Your task to perform on an android device: turn on notifications settings in the gmail app Image 0: 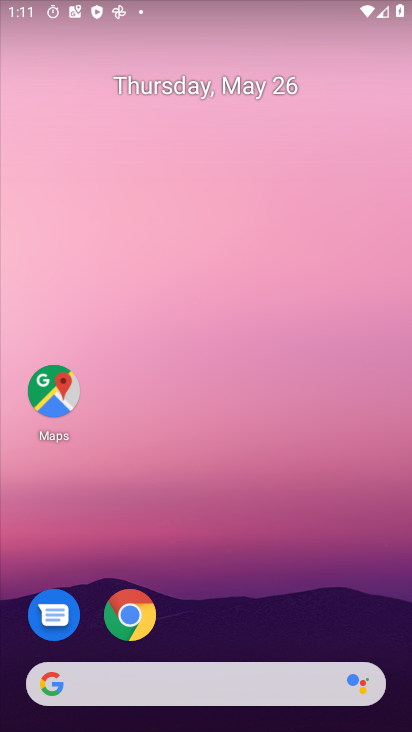
Step 0: drag from (237, 612) to (186, 263)
Your task to perform on an android device: turn on notifications settings in the gmail app Image 1: 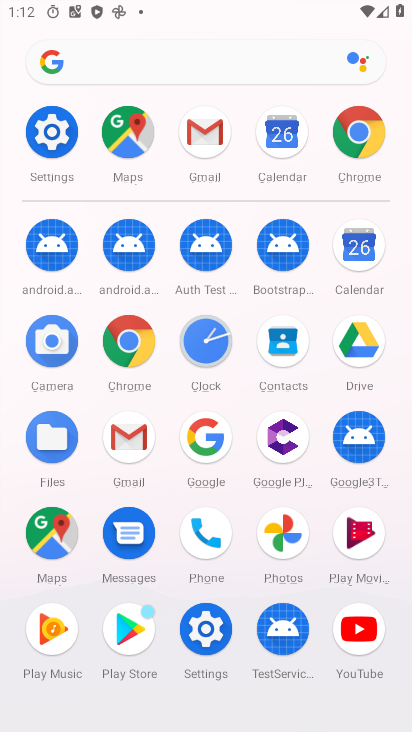
Step 1: click (192, 145)
Your task to perform on an android device: turn on notifications settings in the gmail app Image 2: 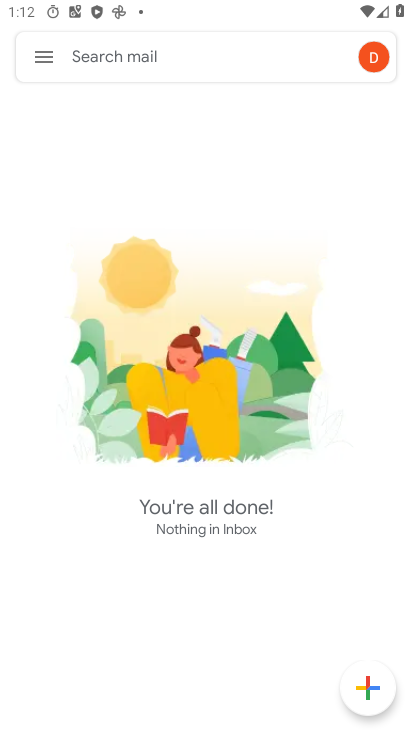
Step 2: click (55, 60)
Your task to perform on an android device: turn on notifications settings in the gmail app Image 3: 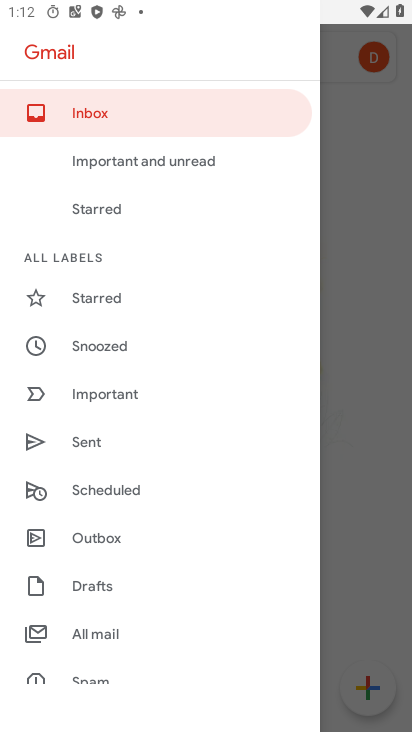
Step 3: drag from (138, 652) to (98, 274)
Your task to perform on an android device: turn on notifications settings in the gmail app Image 4: 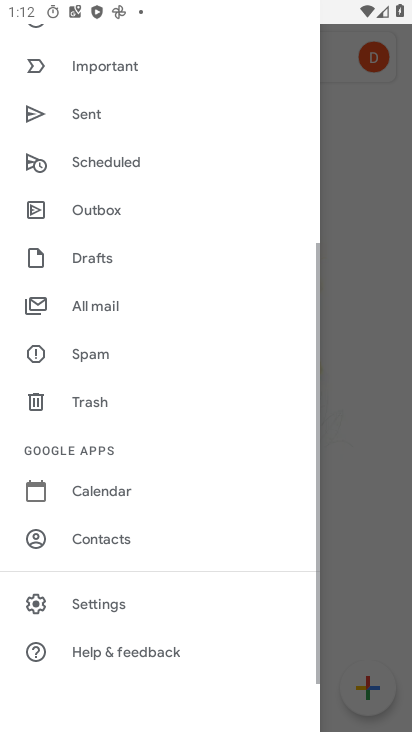
Step 4: click (119, 607)
Your task to perform on an android device: turn on notifications settings in the gmail app Image 5: 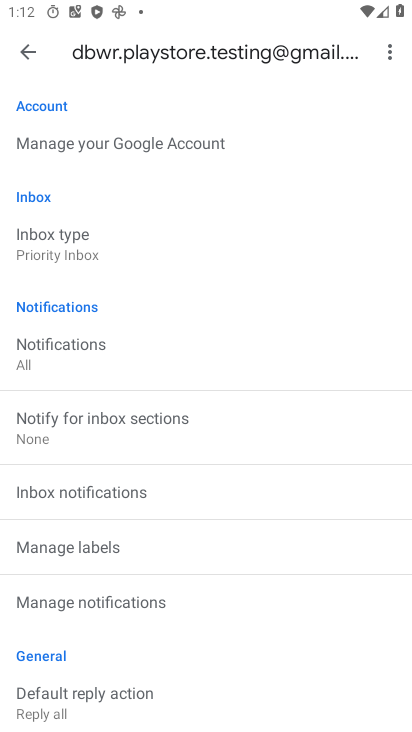
Step 5: drag from (133, 683) to (130, 530)
Your task to perform on an android device: turn on notifications settings in the gmail app Image 6: 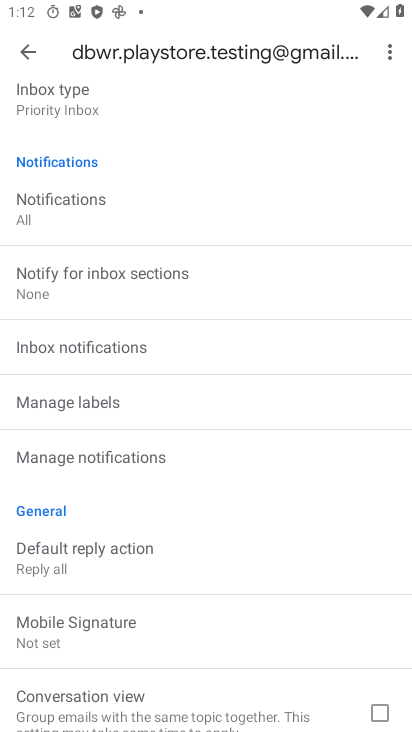
Step 6: click (146, 449)
Your task to perform on an android device: turn on notifications settings in the gmail app Image 7: 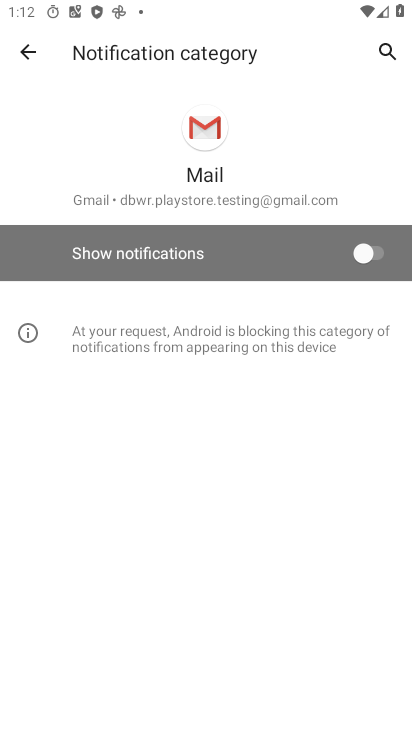
Step 7: click (357, 262)
Your task to perform on an android device: turn on notifications settings in the gmail app Image 8: 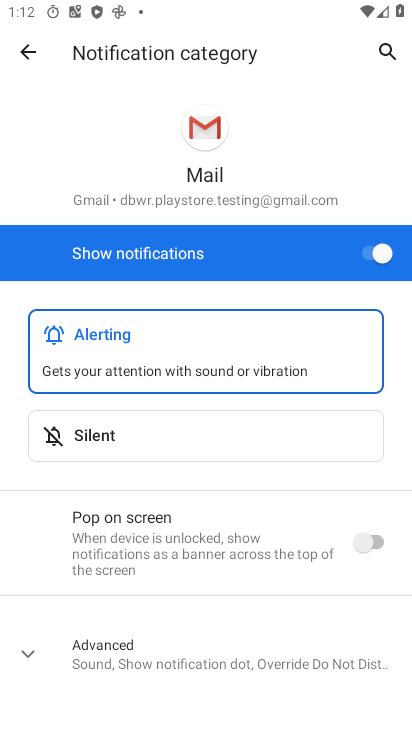
Step 8: task complete